Your task to perform on an android device: Open location settings Image 0: 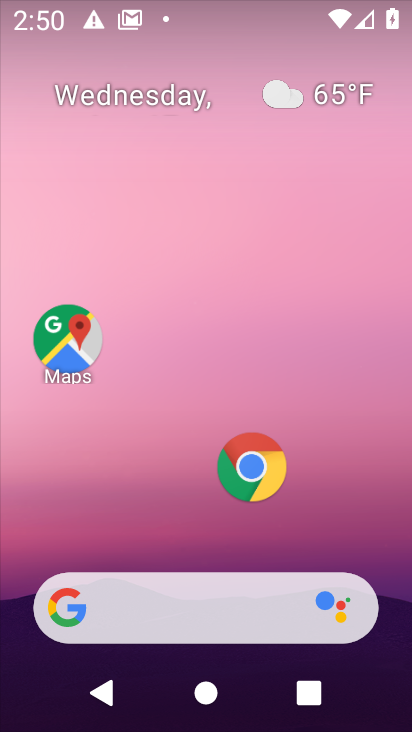
Step 0: drag from (166, 514) to (212, 221)
Your task to perform on an android device: Open location settings Image 1: 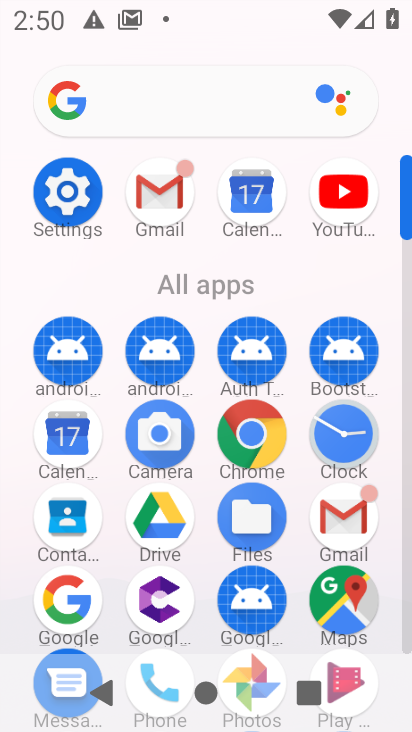
Step 1: click (68, 205)
Your task to perform on an android device: Open location settings Image 2: 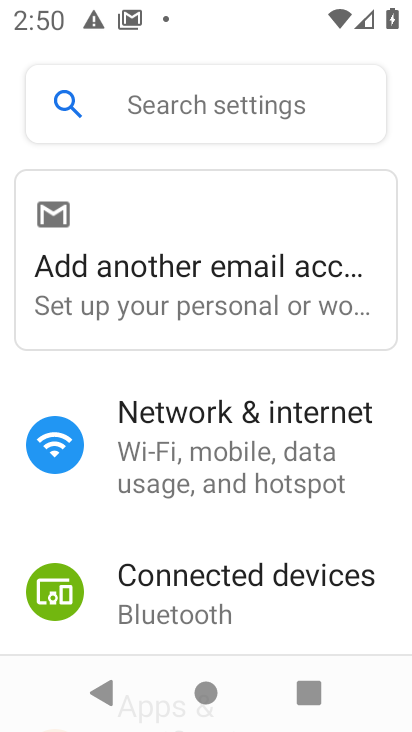
Step 2: task complete